Your task to perform on an android device: check out phone information Image 0: 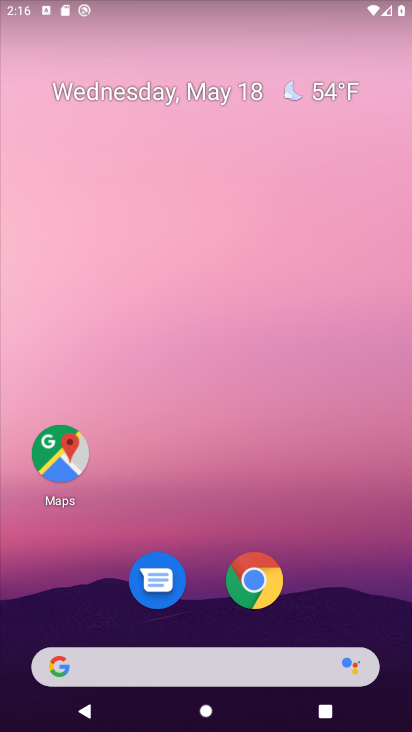
Step 0: drag from (202, 628) to (238, 0)
Your task to perform on an android device: check out phone information Image 1: 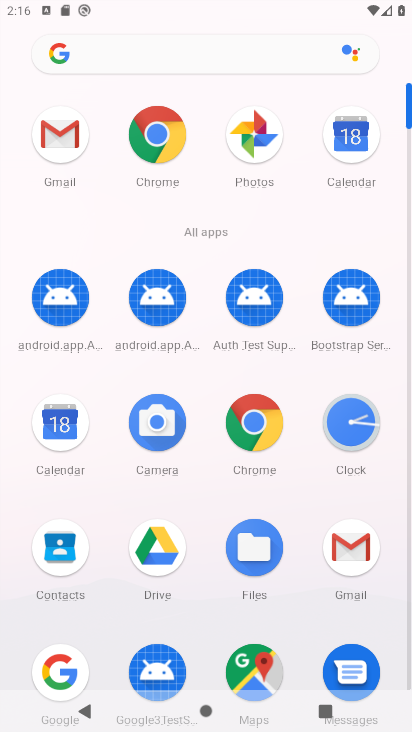
Step 1: drag from (187, 619) to (208, 146)
Your task to perform on an android device: check out phone information Image 2: 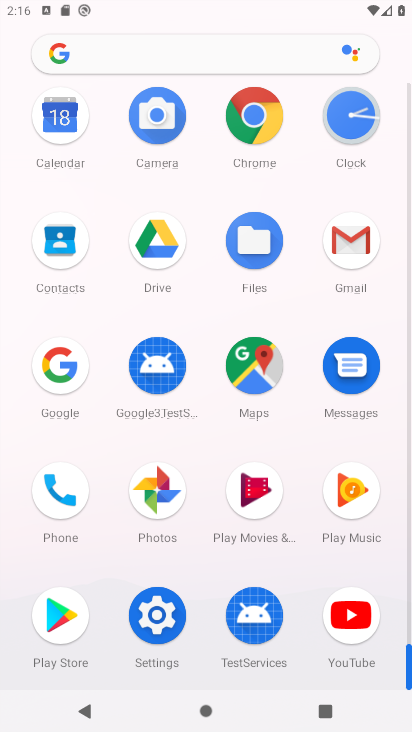
Step 2: click (165, 625)
Your task to perform on an android device: check out phone information Image 3: 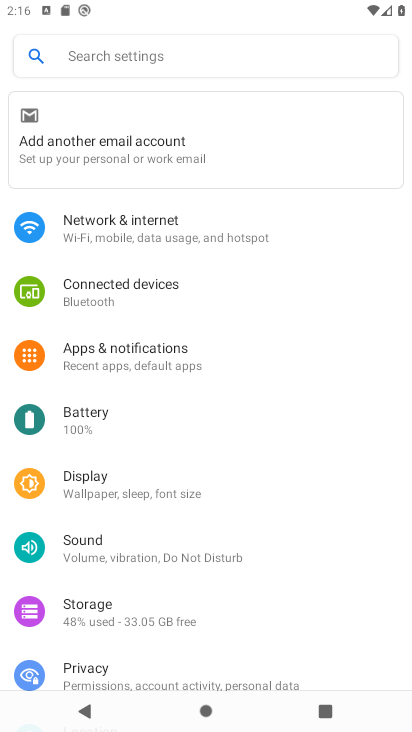
Step 3: drag from (128, 628) to (217, 206)
Your task to perform on an android device: check out phone information Image 4: 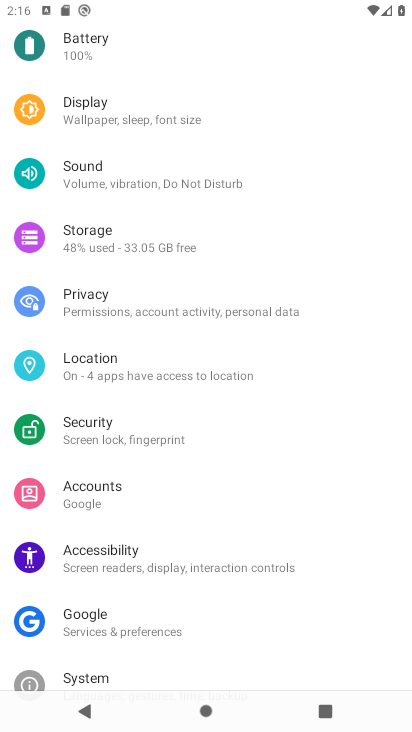
Step 4: drag from (201, 675) to (230, 151)
Your task to perform on an android device: check out phone information Image 5: 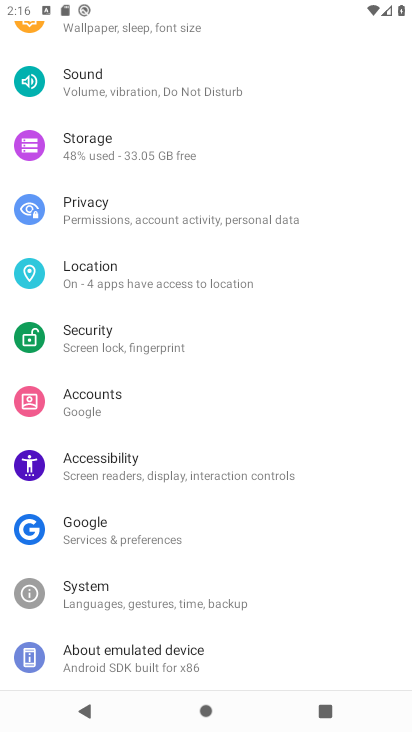
Step 5: click (125, 654)
Your task to perform on an android device: check out phone information Image 6: 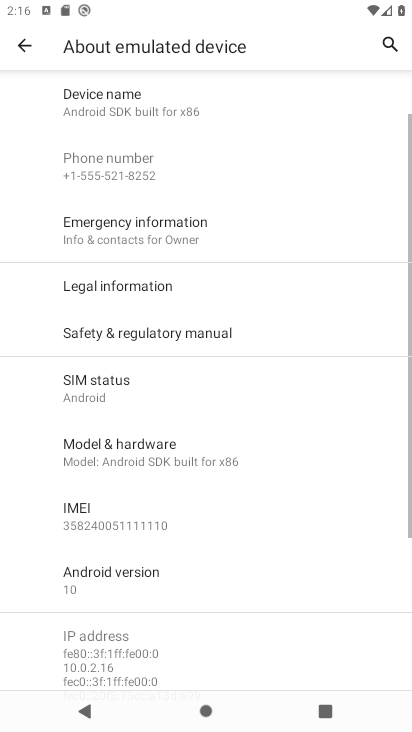
Step 6: task complete